Your task to perform on an android device: Go to Reddit Image 0: 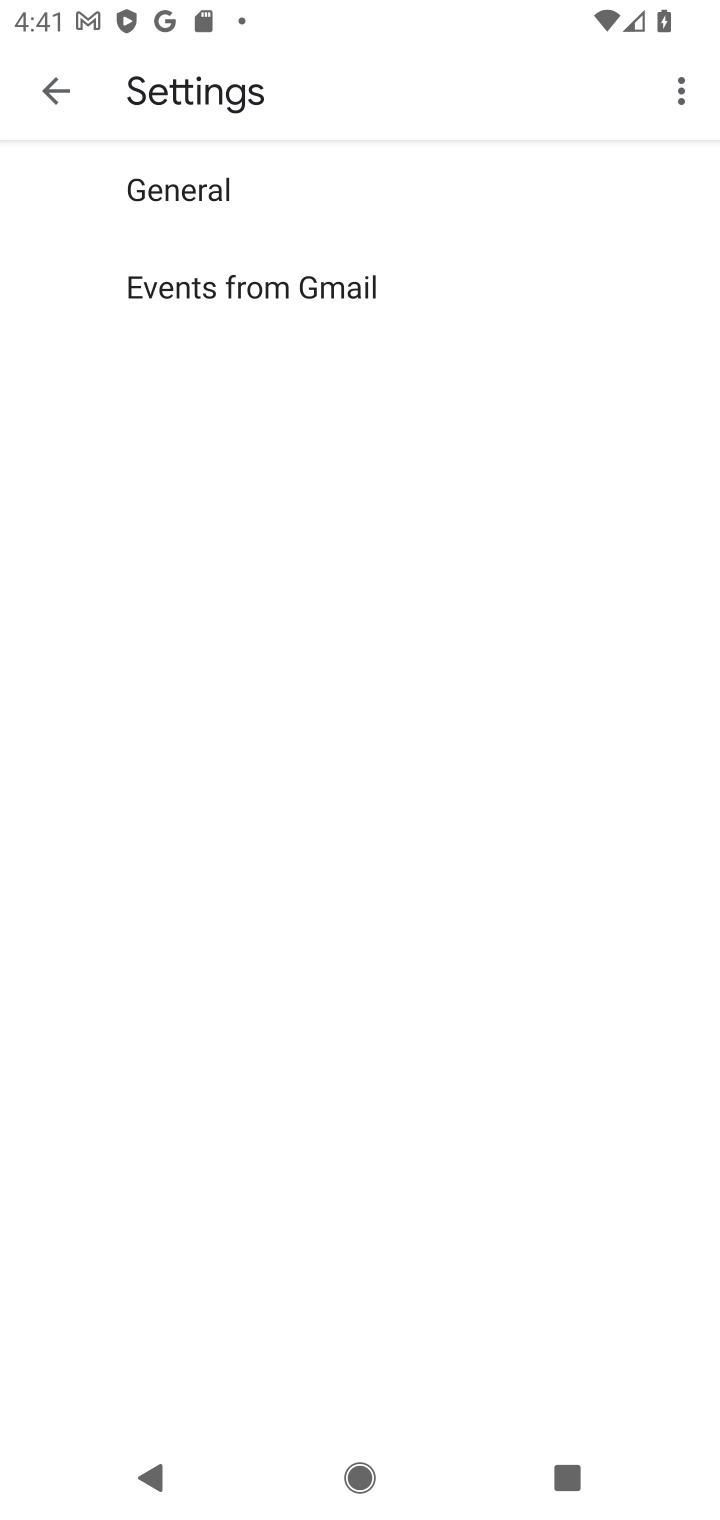
Step 0: press home button
Your task to perform on an android device: Go to Reddit Image 1: 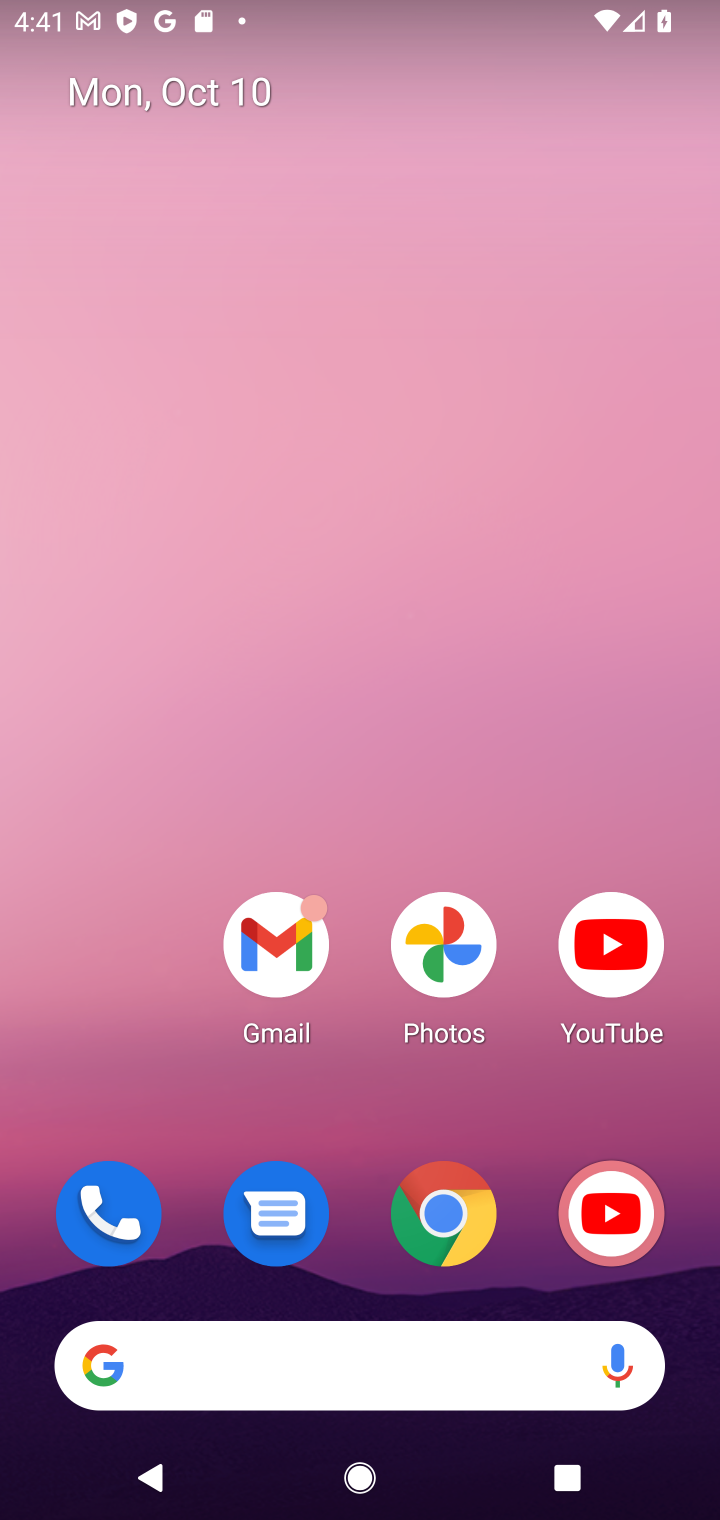
Step 1: click (323, 1366)
Your task to perform on an android device: Go to Reddit Image 2: 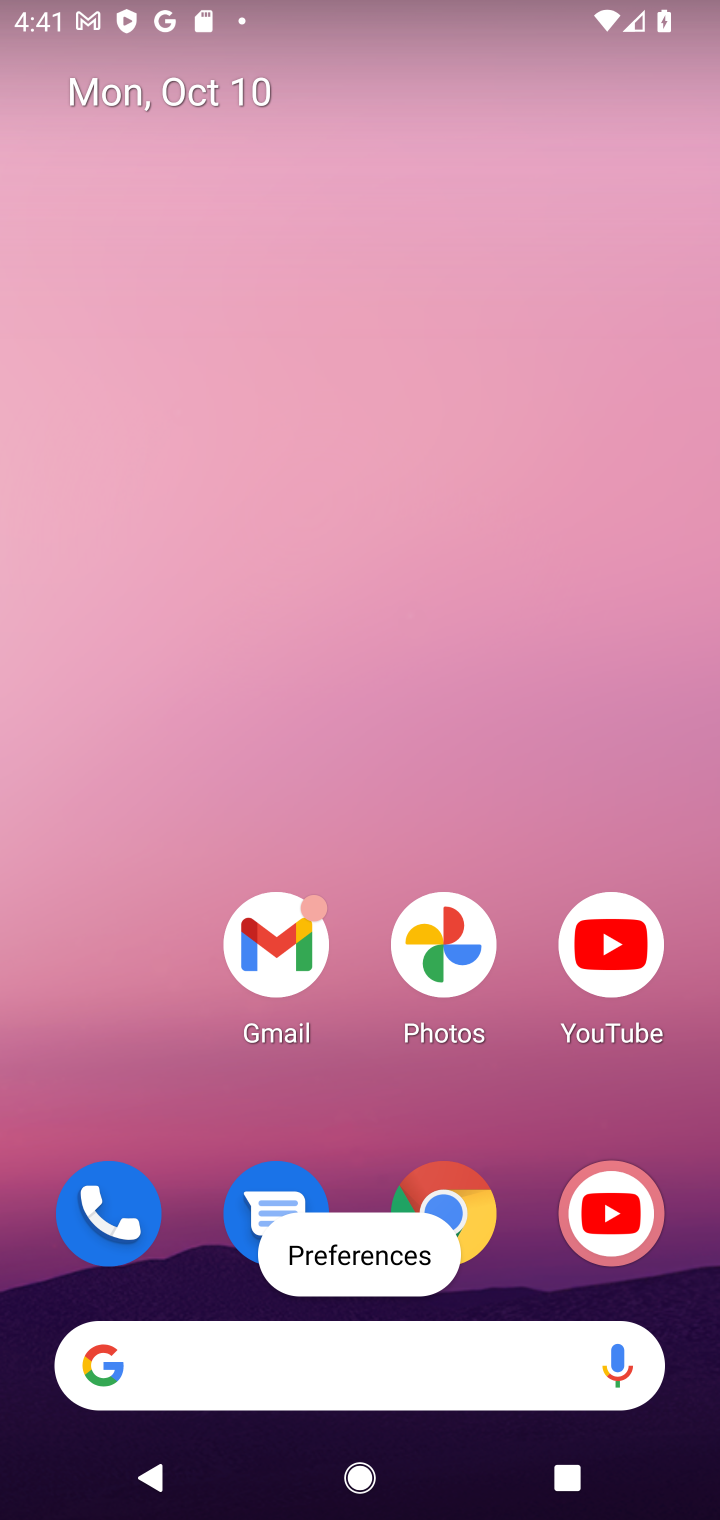
Step 2: click (292, 1347)
Your task to perform on an android device: Go to Reddit Image 3: 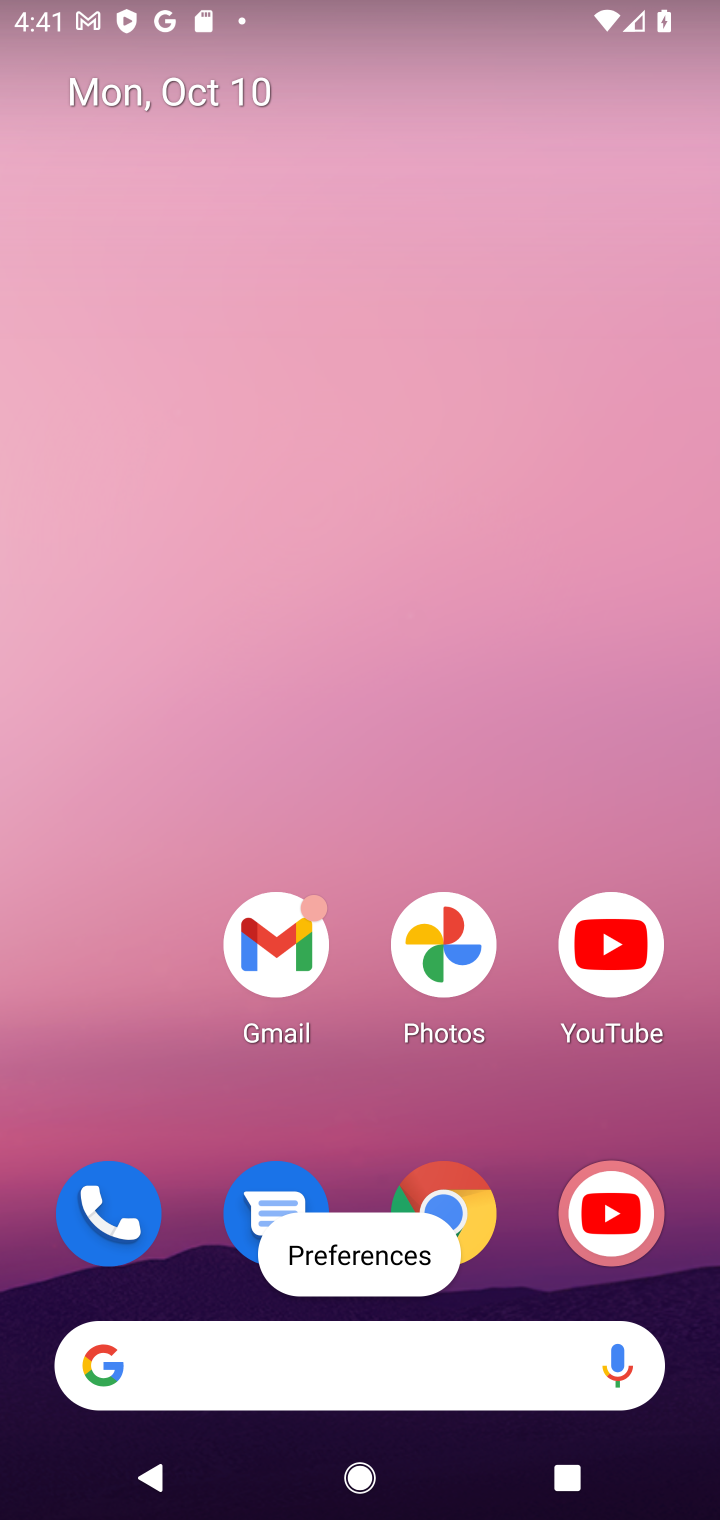
Step 3: click (321, 1364)
Your task to perform on an android device: Go to Reddit Image 4: 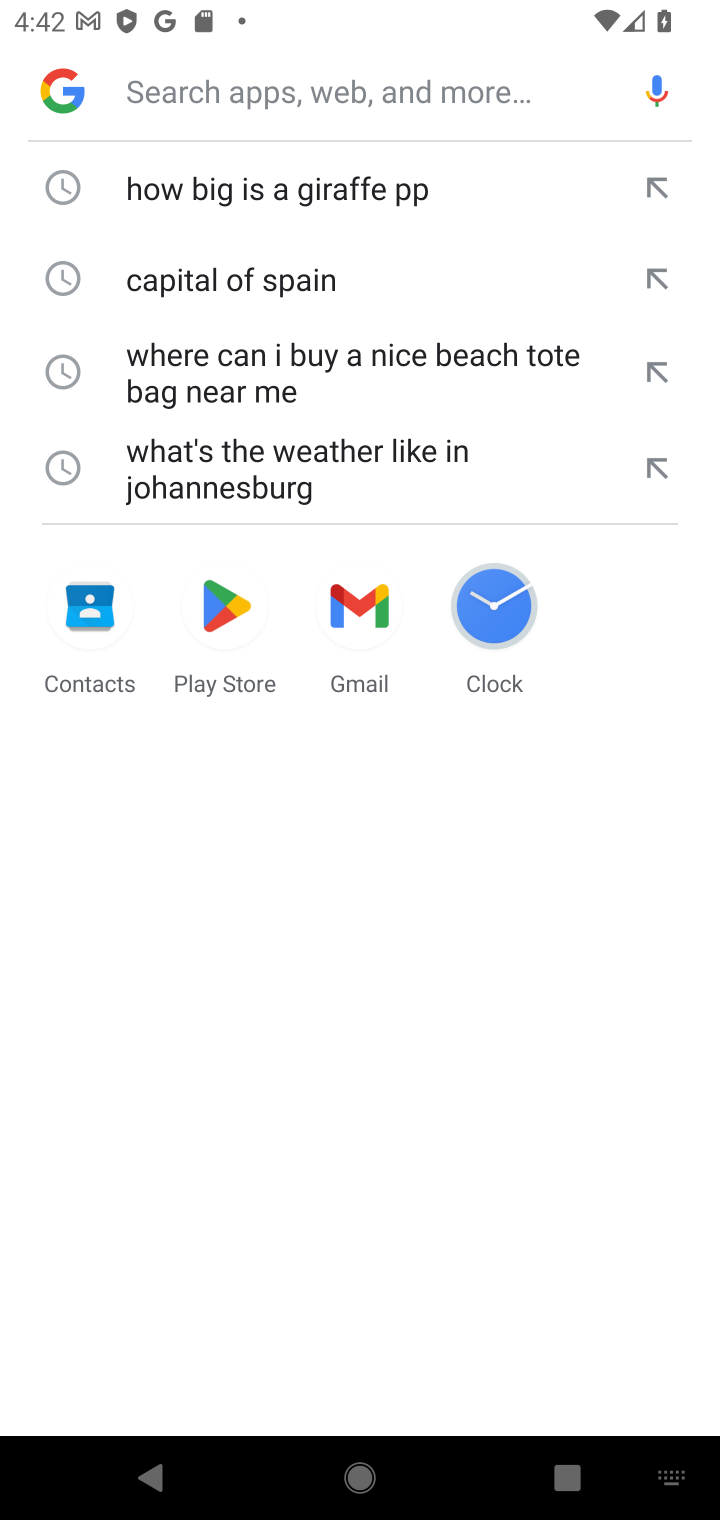
Step 4: type "Reddit"
Your task to perform on an android device: Go to Reddit Image 5: 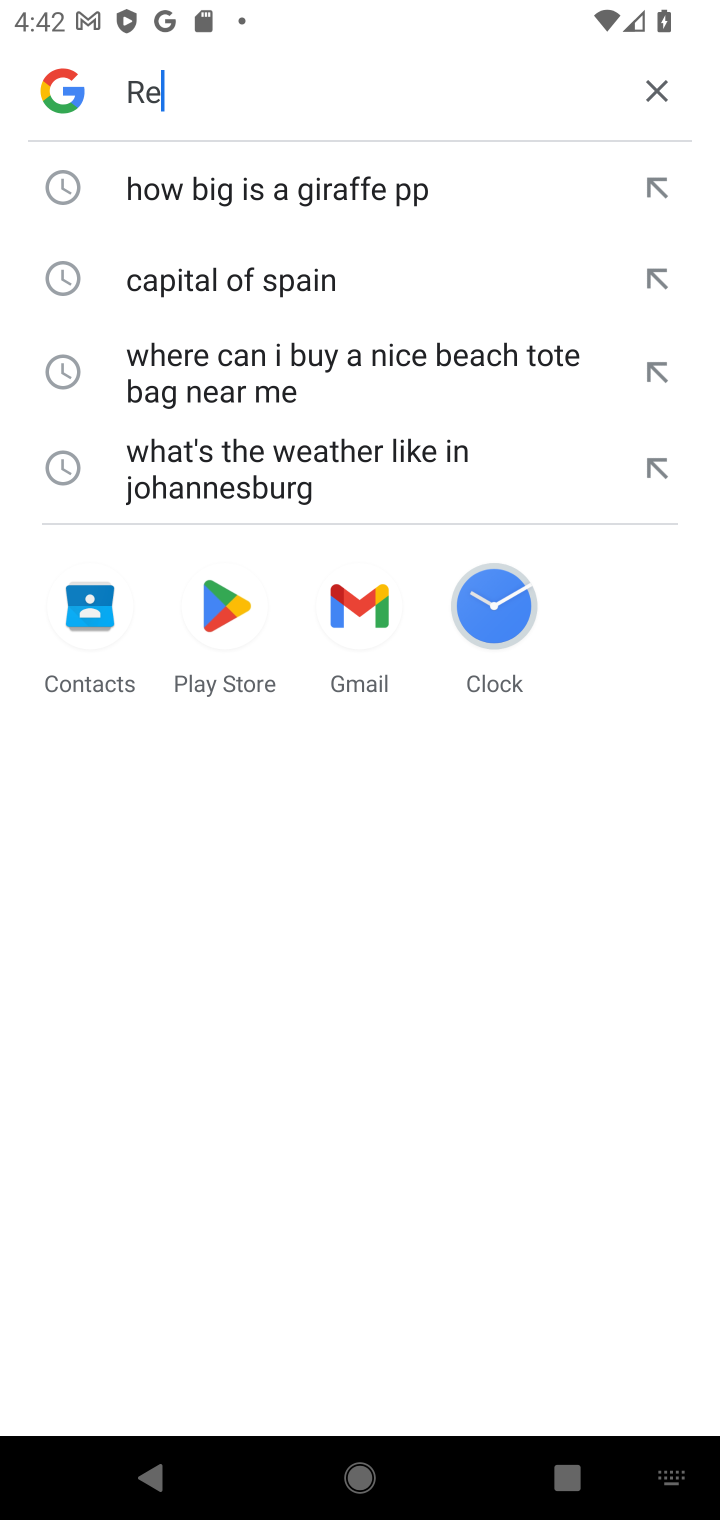
Step 5: type ""
Your task to perform on an android device: Go to Reddit Image 6: 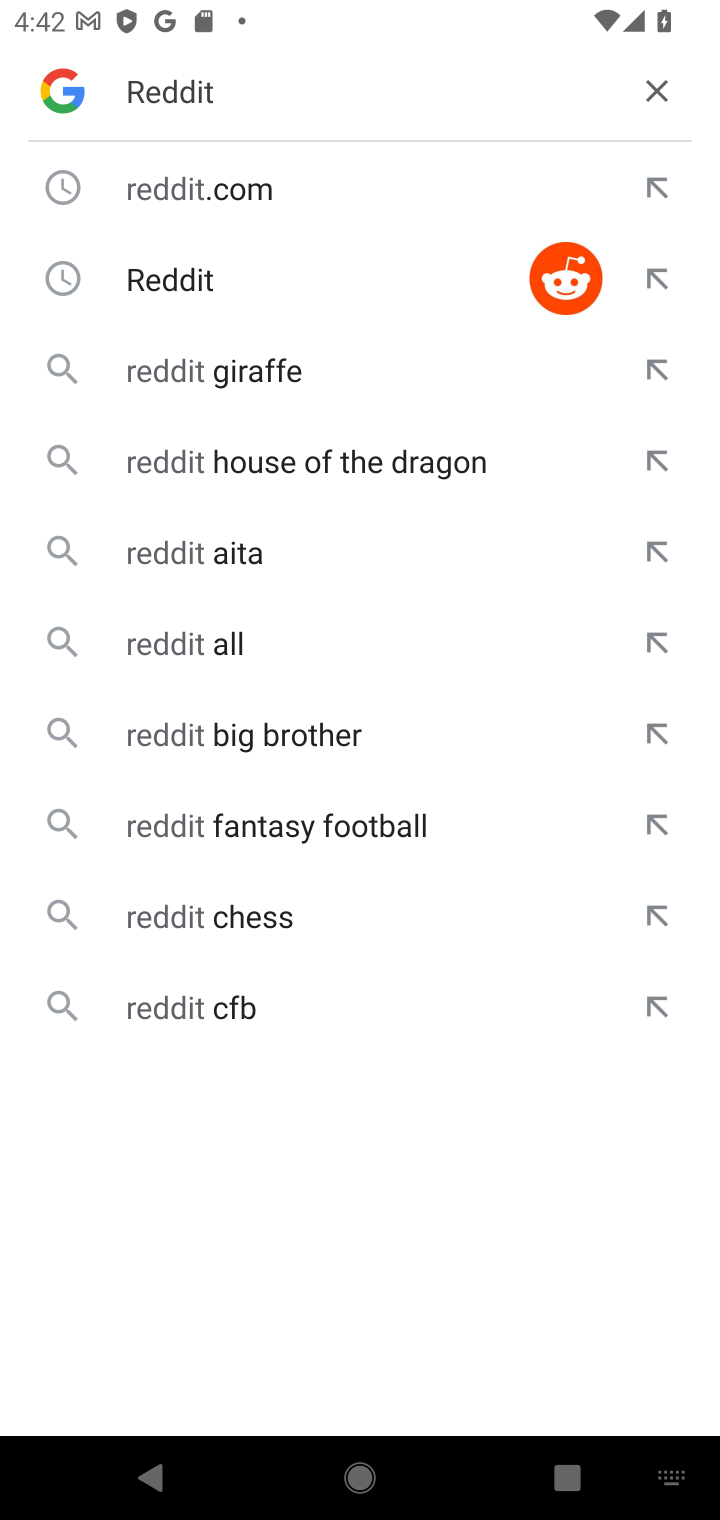
Step 6: click (284, 218)
Your task to perform on an android device: Go to Reddit Image 7: 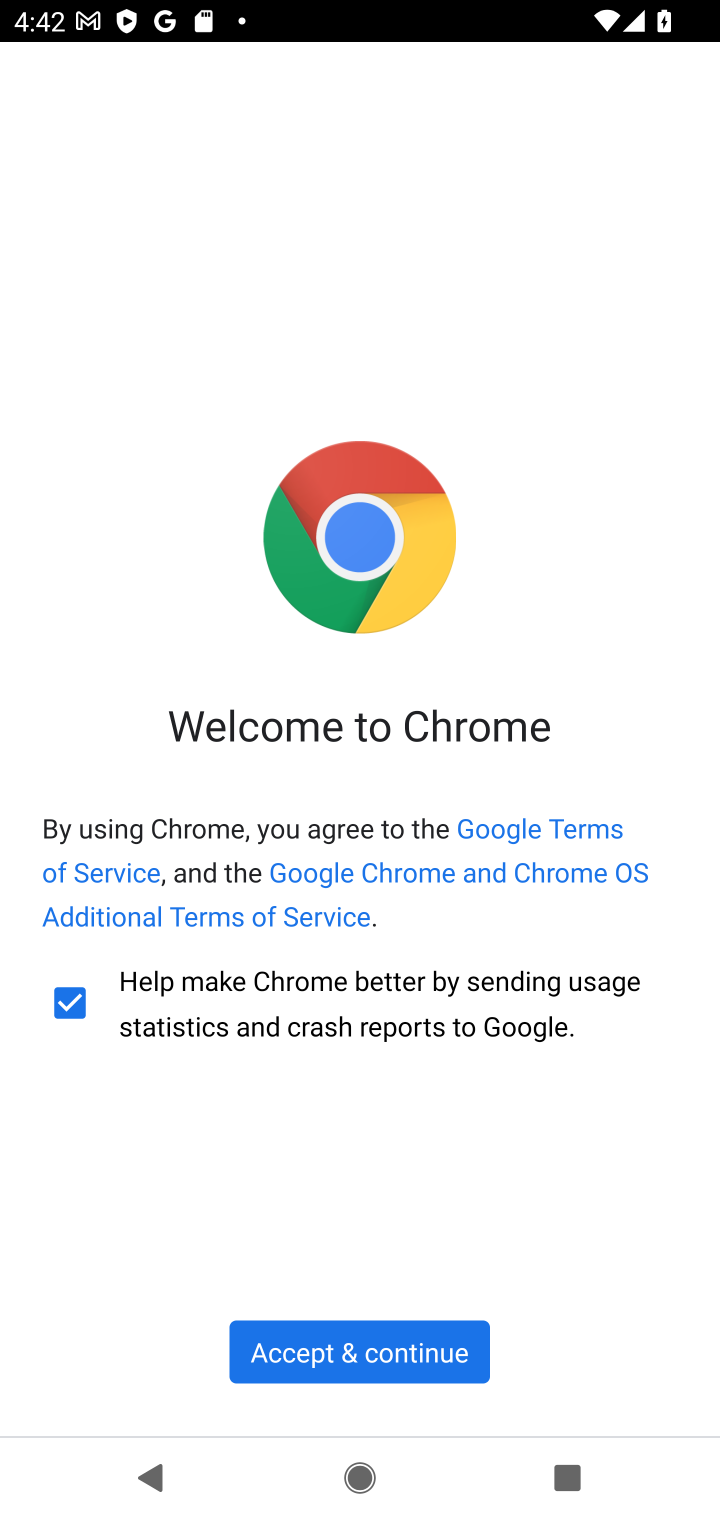
Step 7: click (430, 1362)
Your task to perform on an android device: Go to Reddit Image 8: 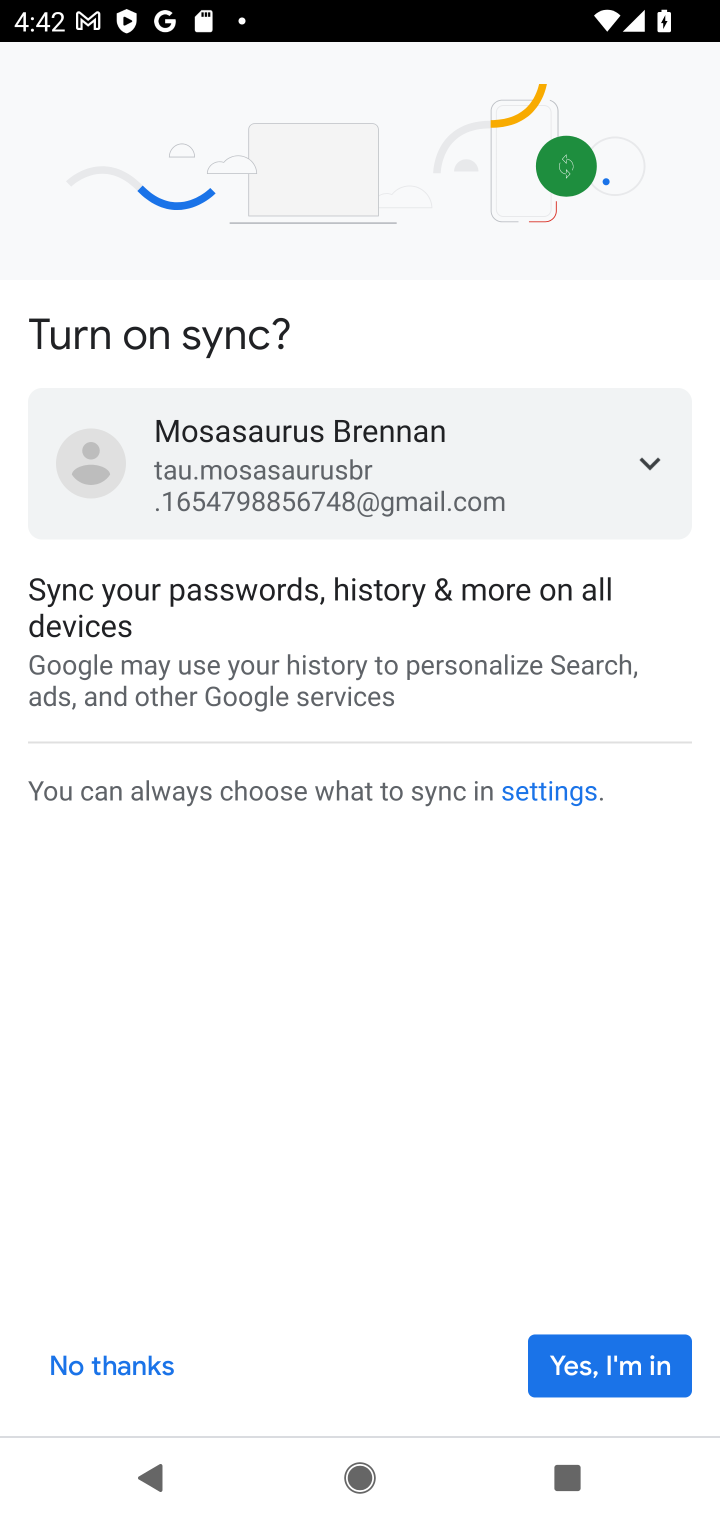
Step 8: click (663, 1361)
Your task to perform on an android device: Go to Reddit Image 9: 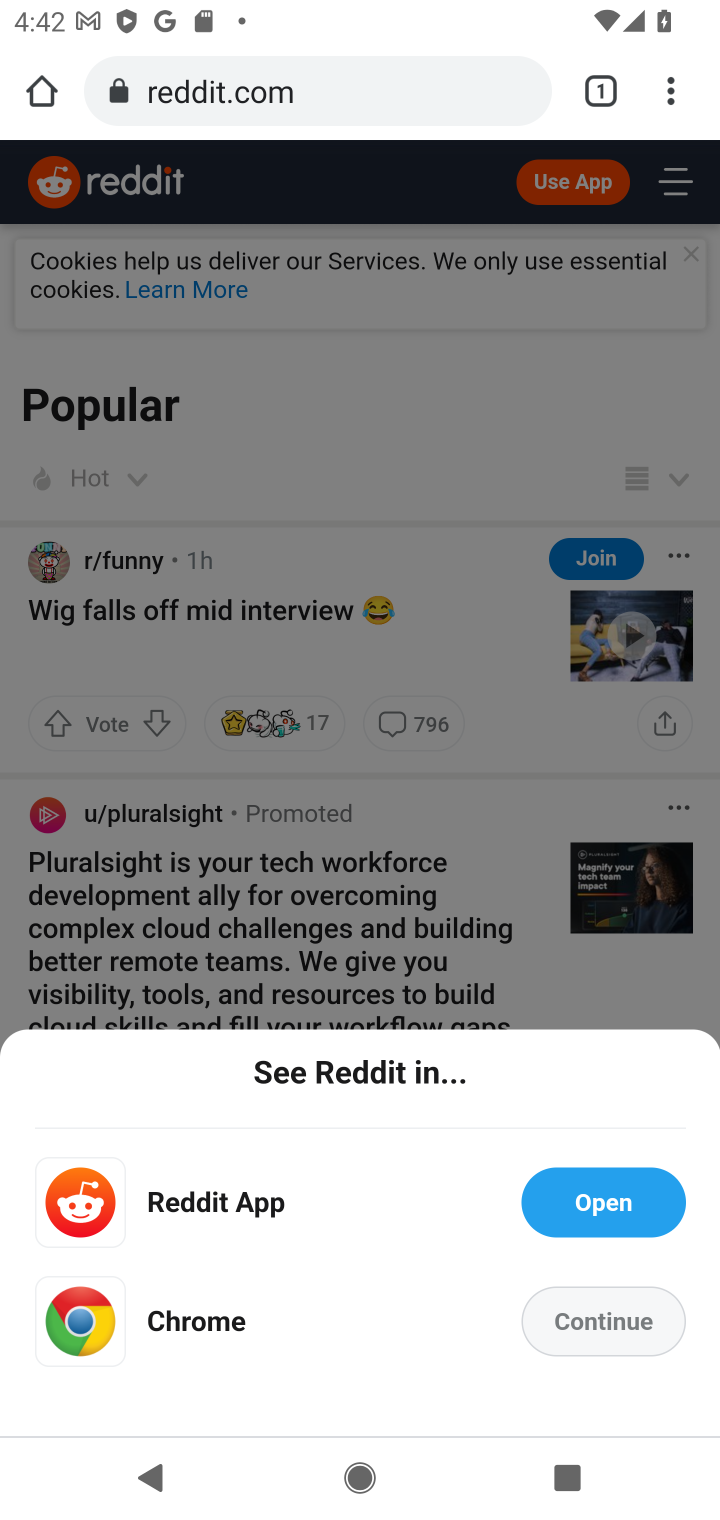
Step 9: click (566, 1313)
Your task to perform on an android device: Go to Reddit Image 10: 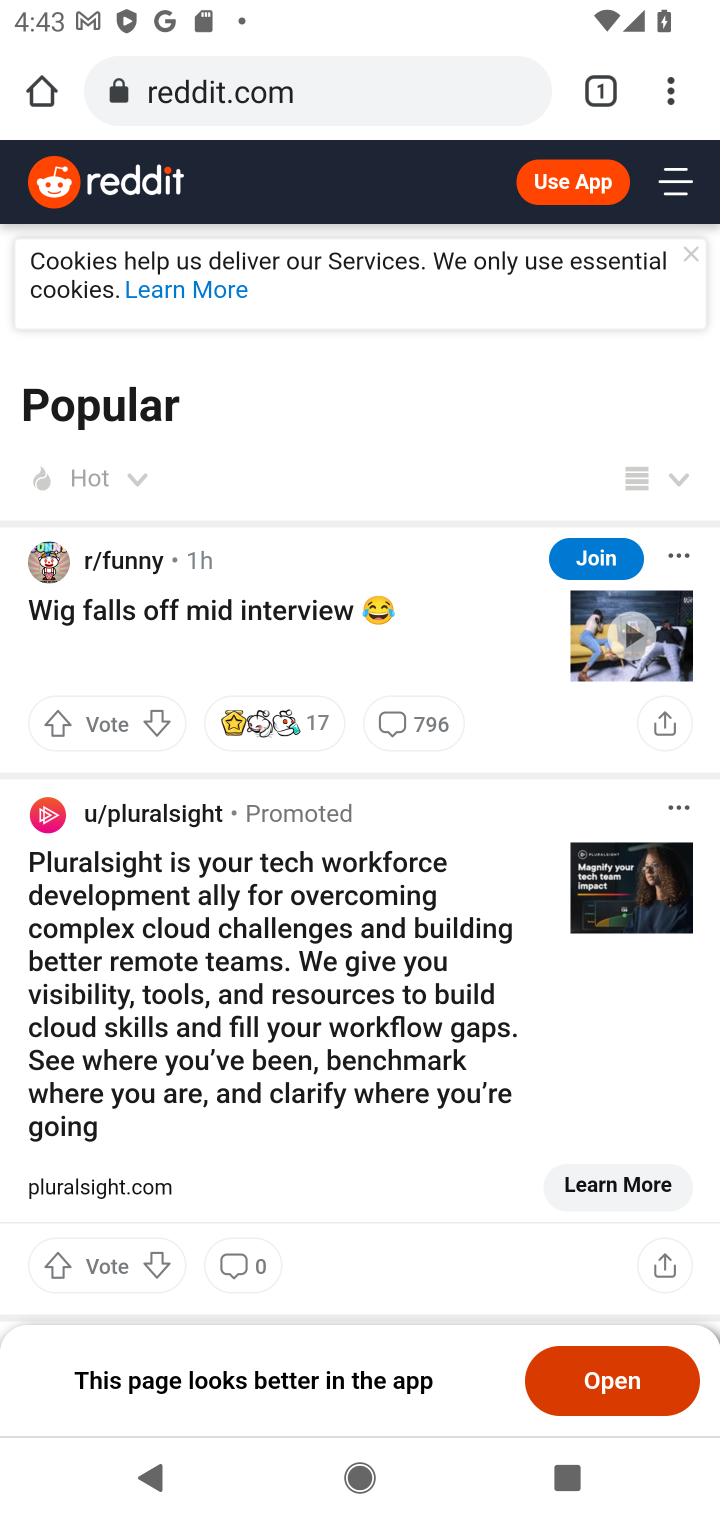
Step 10: task complete